Your task to perform on an android device: Open Reddit.com Image 0: 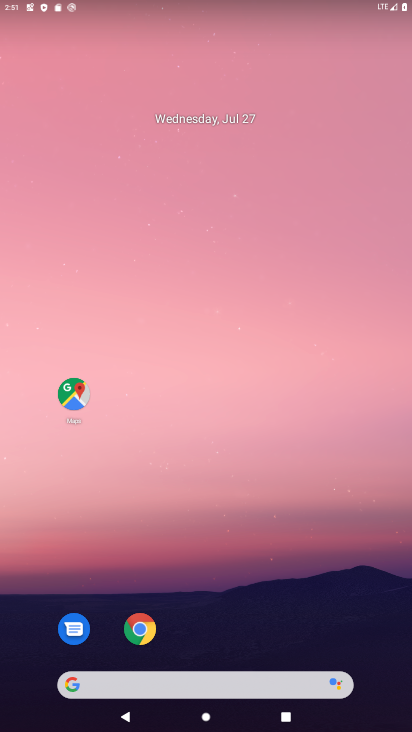
Step 0: click (136, 680)
Your task to perform on an android device: Open Reddit.com Image 1: 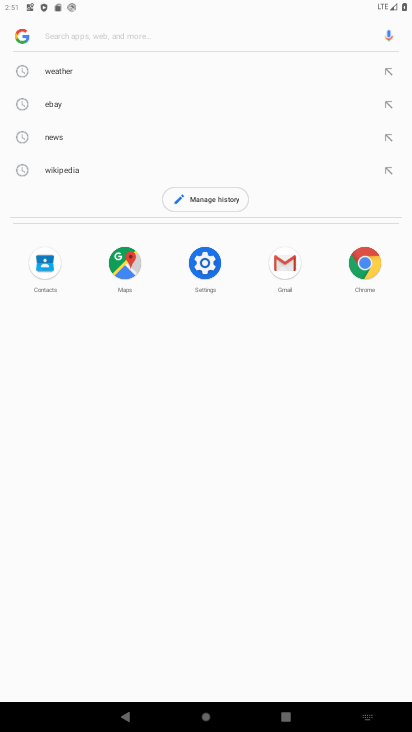
Step 1: type "reddit"
Your task to perform on an android device: Open Reddit.com Image 2: 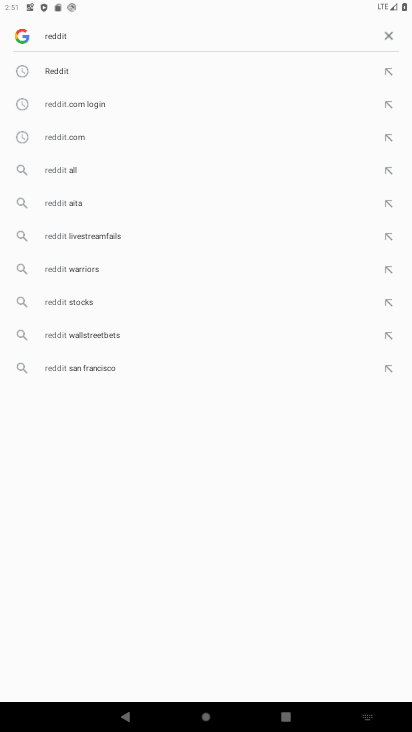
Step 2: click (81, 82)
Your task to perform on an android device: Open Reddit.com Image 3: 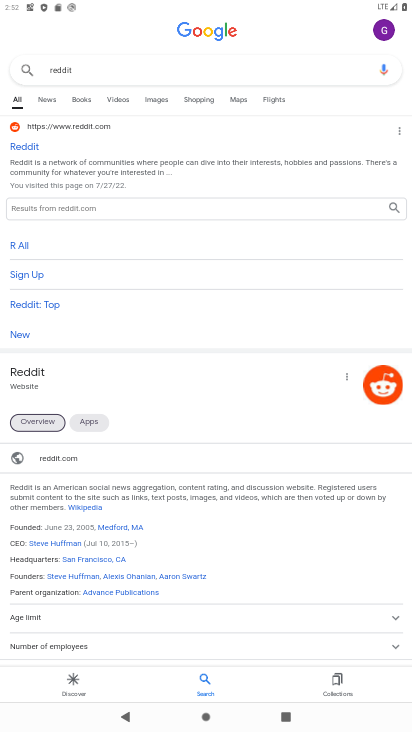
Step 3: click (24, 390)
Your task to perform on an android device: Open Reddit.com Image 4: 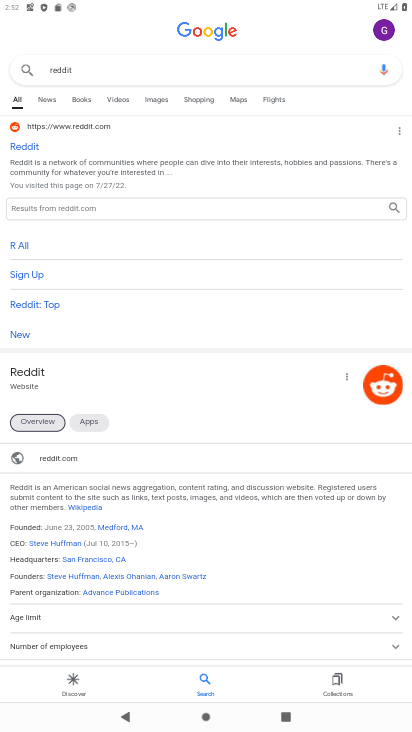
Step 4: click (30, 139)
Your task to perform on an android device: Open Reddit.com Image 5: 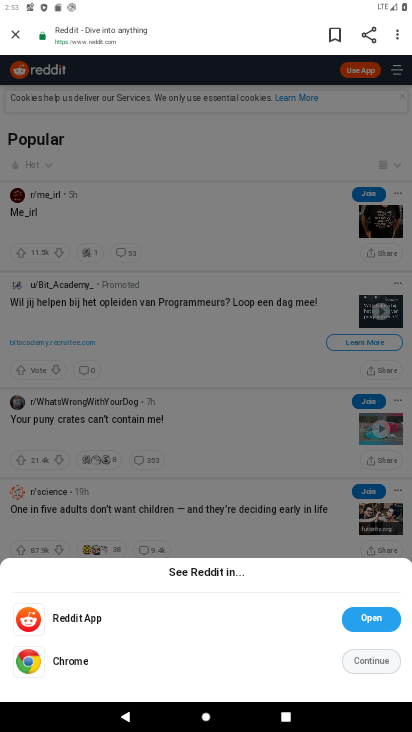
Step 5: task complete